Your task to perform on an android device: What's the weather today? Image 0: 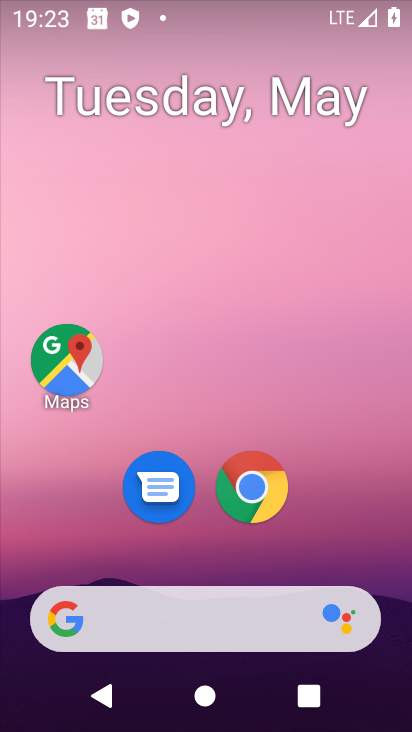
Step 0: click (184, 617)
Your task to perform on an android device: What's the weather today? Image 1: 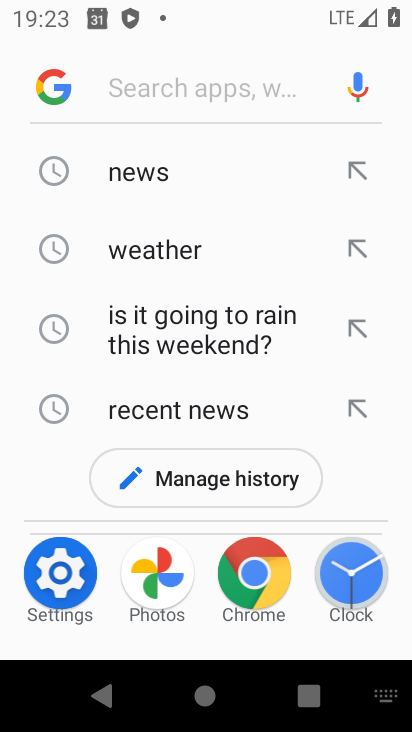
Step 1: click (159, 241)
Your task to perform on an android device: What's the weather today? Image 2: 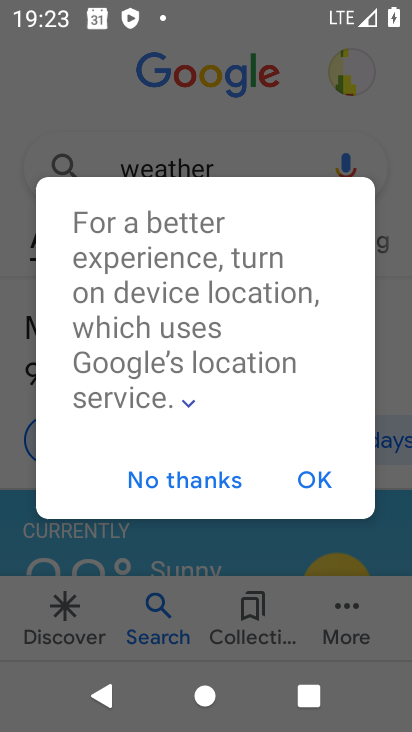
Step 2: click (306, 482)
Your task to perform on an android device: What's the weather today? Image 3: 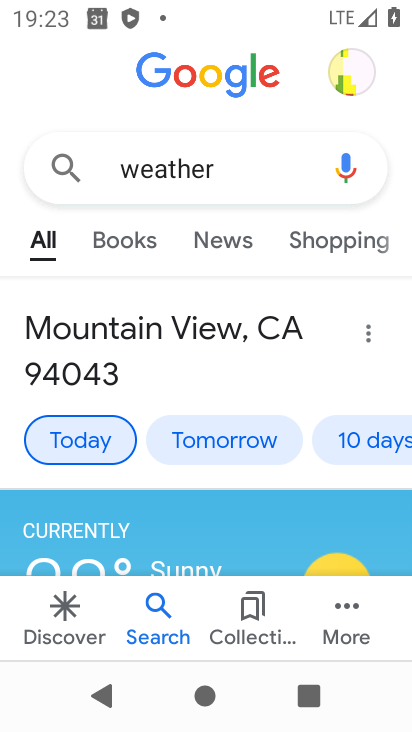
Step 3: task complete